Your task to perform on an android device: What's the weather going to be tomorrow? Image 0: 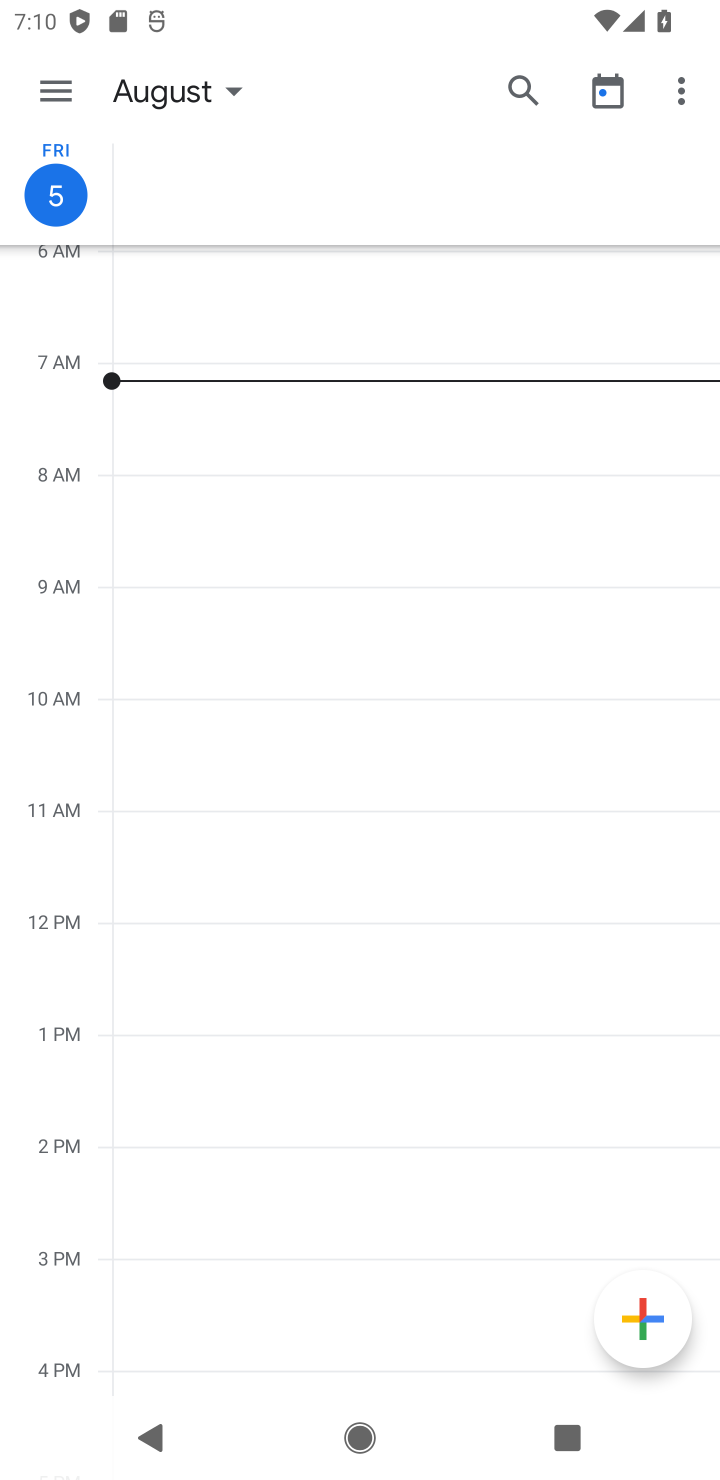
Step 0: press home button
Your task to perform on an android device: What's the weather going to be tomorrow? Image 1: 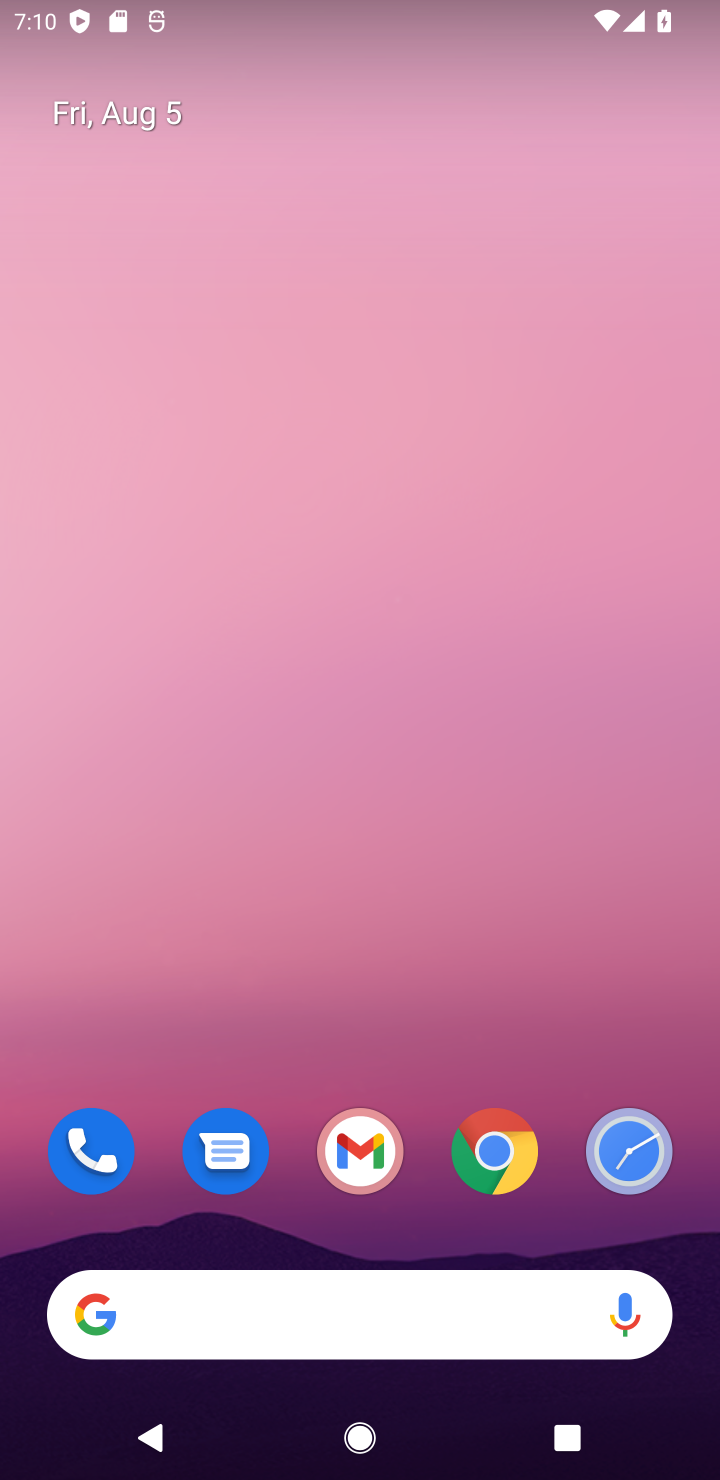
Step 1: click (407, 1302)
Your task to perform on an android device: What's the weather going to be tomorrow? Image 2: 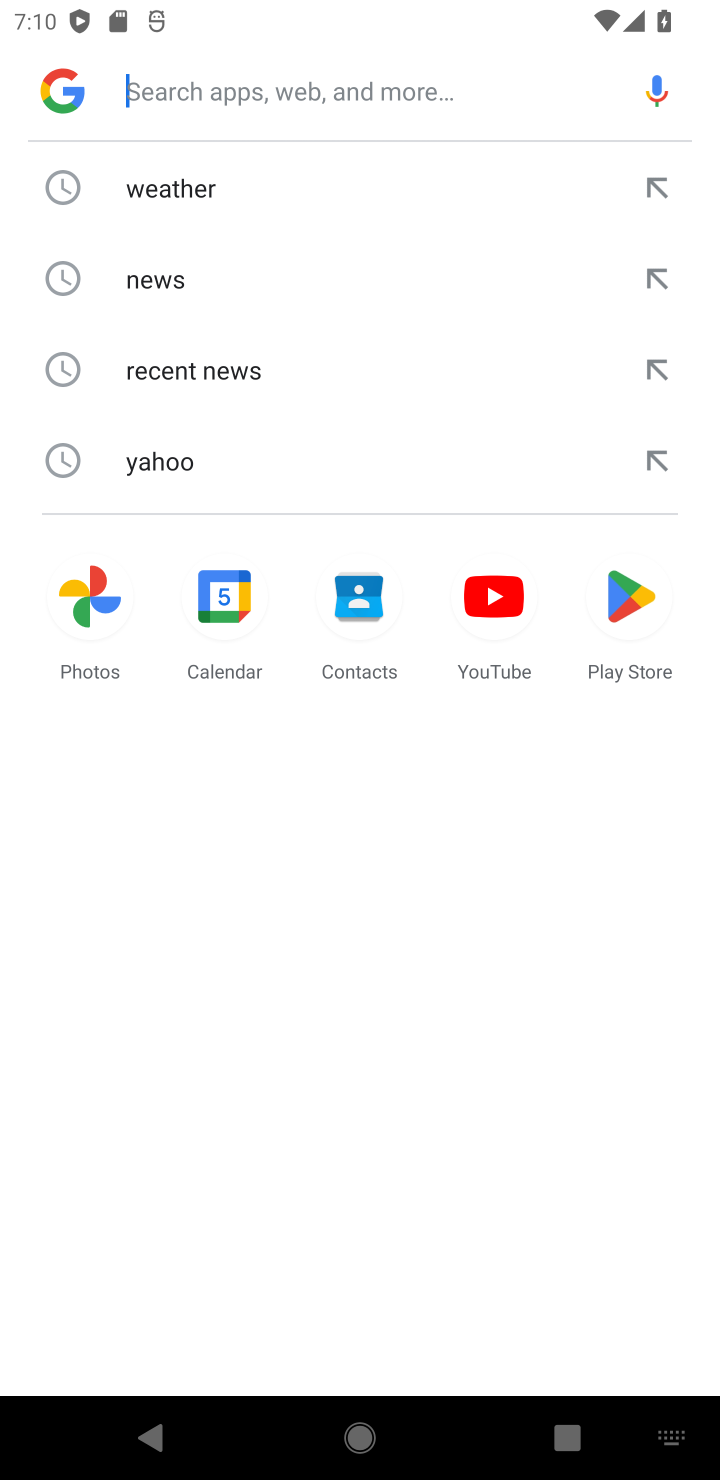
Step 2: click (271, 168)
Your task to perform on an android device: What's the weather going to be tomorrow? Image 3: 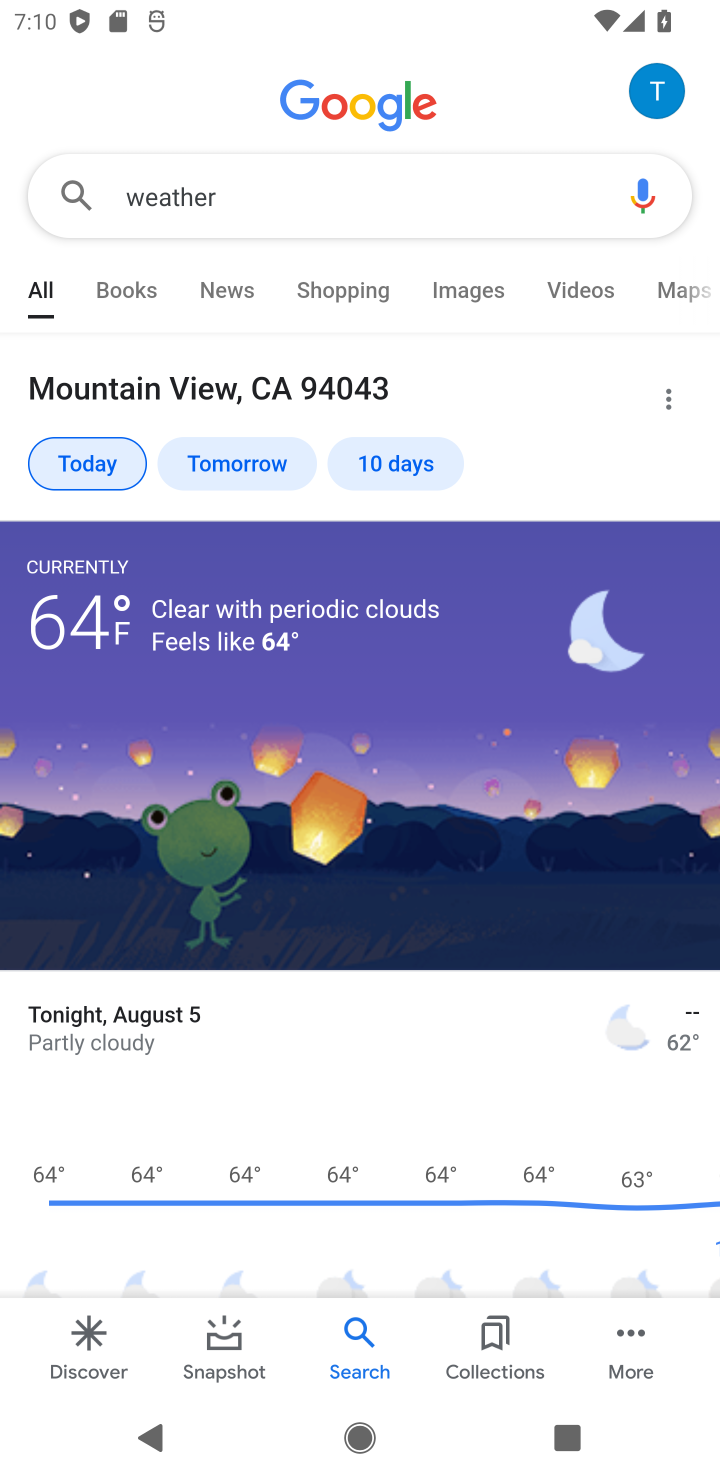
Step 3: click (260, 462)
Your task to perform on an android device: What's the weather going to be tomorrow? Image 4: 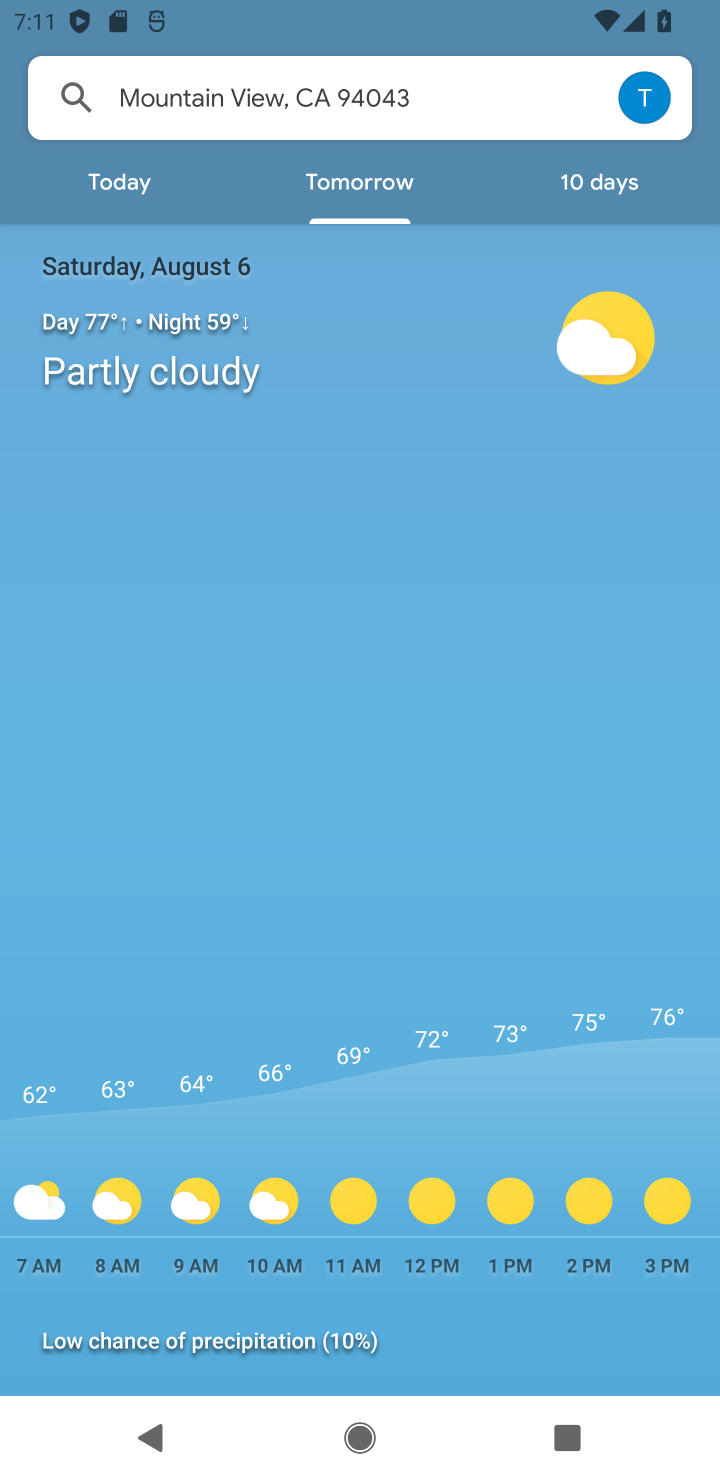
Step 4: task complete